Your task to perform on an android device: see creations saved in the google photos Image 0: 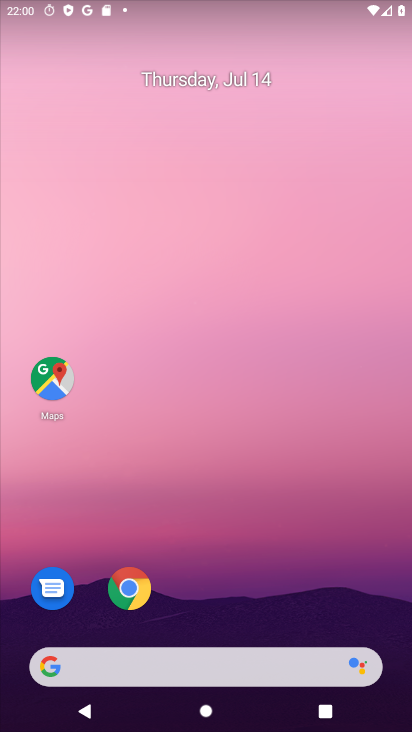
Step 0: drag from (213, 613) to (165, 199)
Your task to perform on an android device: see creations saved in the google photos Image 1: 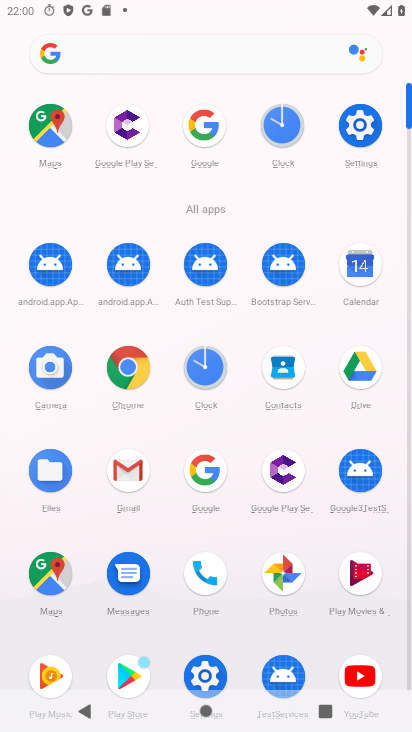
Step 1: click (290, 573)
Your task to perform on an android device: see creations saved in the google photos Image 2: 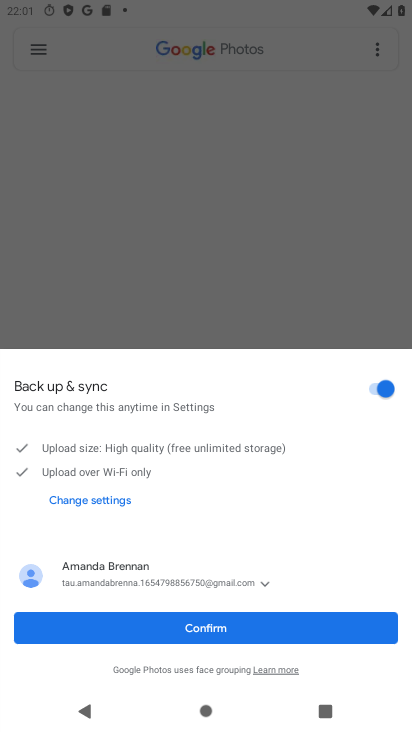
Step 2: click (253, 634)
Your task to perform on an android device: see creations saved in the google photos Image 3: 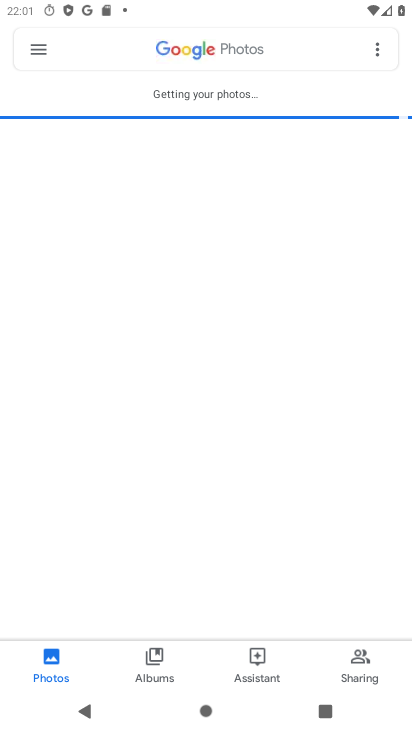
Step 3: click (184, 51)
Your task to perform on an android device: see creations saved in the google photos Image 4: 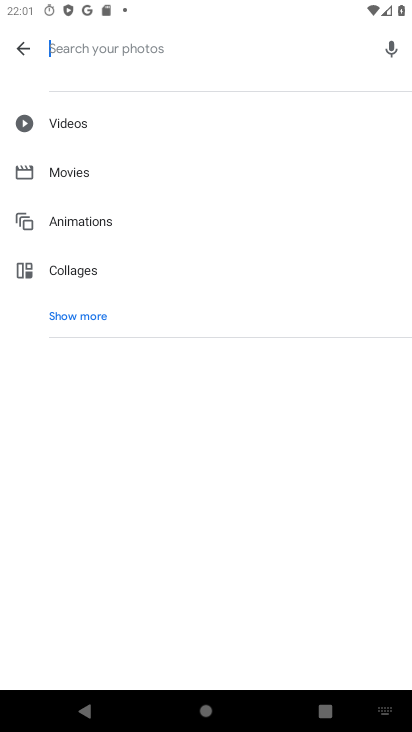
Step 4: click (63, 324)
Your task to perform on an android device: see creations saved in the google photos Image 5: 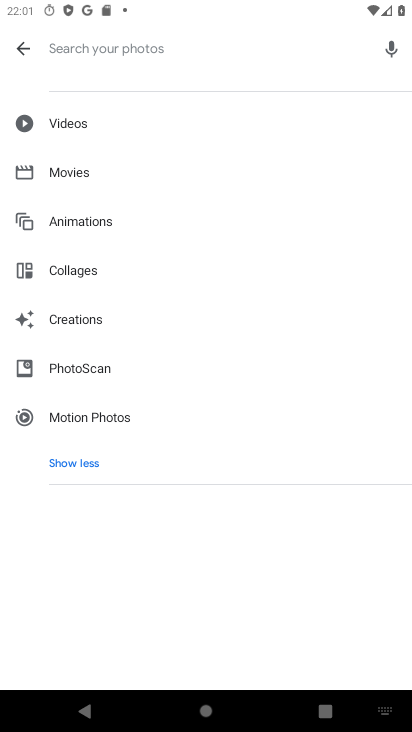
Step 5: click (68, 318)
Your task to perform on an android device: see creations saved in the google photos Image 6: 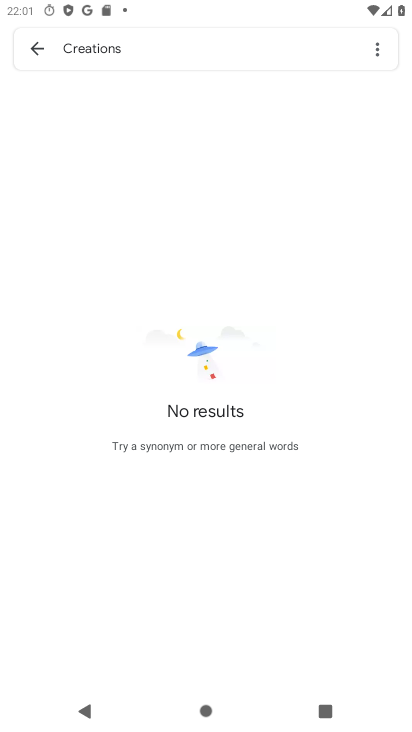
Step 6: task complete